Your task to perform on an android device: Search for seafood restaurants on Google Maps Image 0: 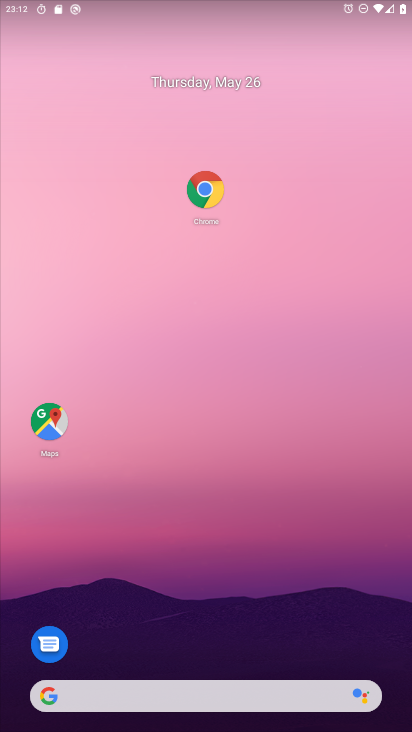
Step 0: drag from (216, 631) to (210, 145)
Your task to perform on an android device: Search for seafood restaurants on Google Maps Image 1: 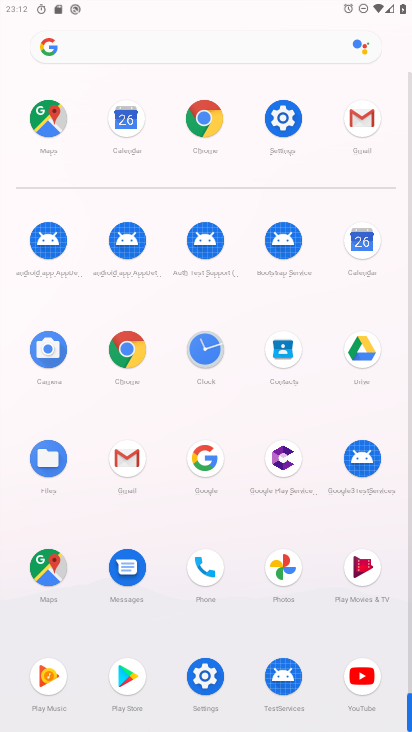
Step 1: click (216, 456)
Your task to perform on an android device: Search for seafood restaurants on Google Maps Image 2: 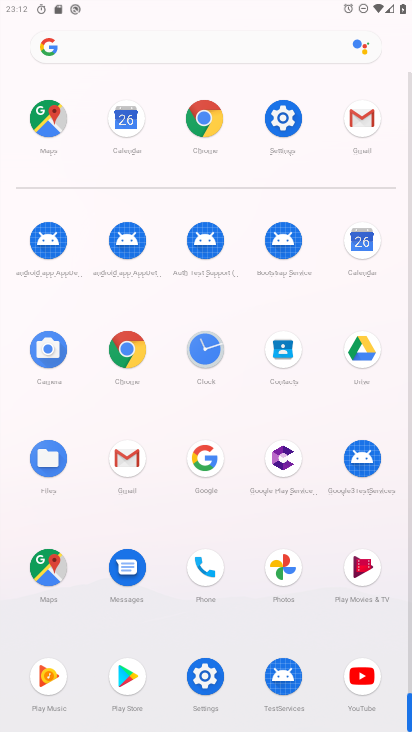
Step 2: click (216, 456)
Your task to perform on an android device: Search for seafood restaurants on Google Maps Image 3: 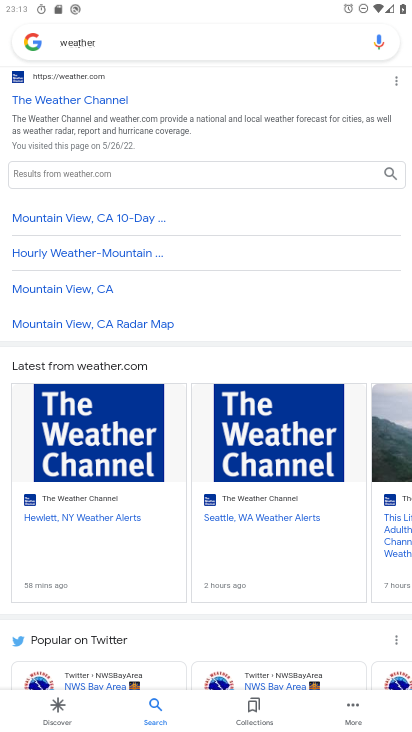
Step 3: press home button
Your task to perform on an android device: Search for seafood restaurants on Google Maps Image 4: 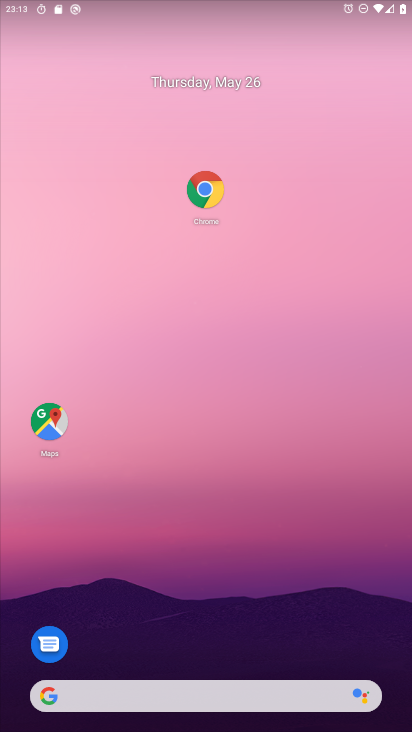
Step 4: drag from (362, 454) to (327, 314)
Your task to perform on an android device: Search for seafood restaurants on Google Maps Image 5: 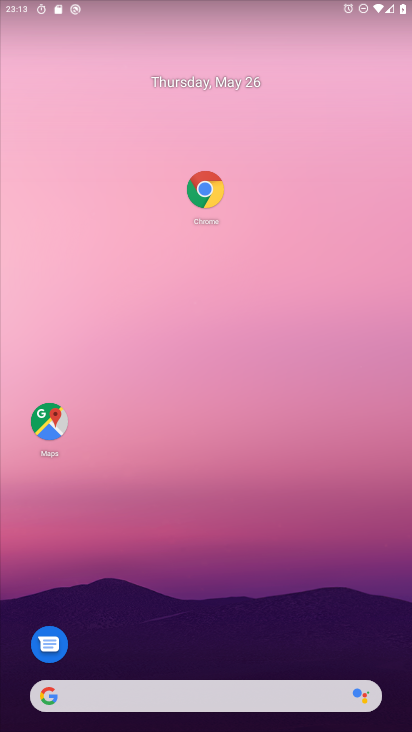
Step 5: drag from (307, 675) to (136, 270)
Your task to perform on an android device: Search for seafood restaurants on Google Maps Image 6: 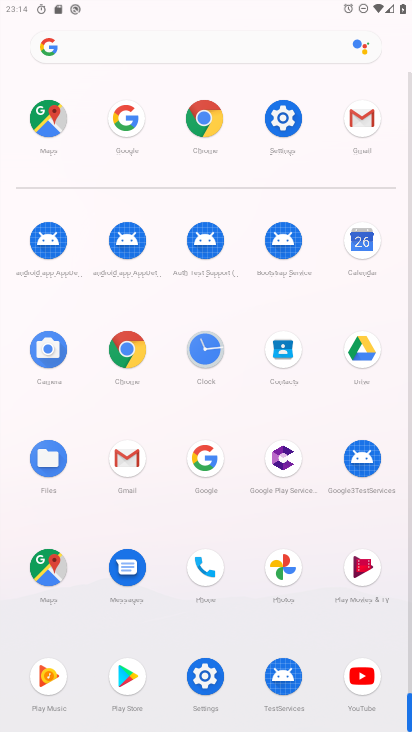
Step 6: click (47, 565)
Your task to perform on an android device: Search for seafood restaurants on Google Maps Image 7: 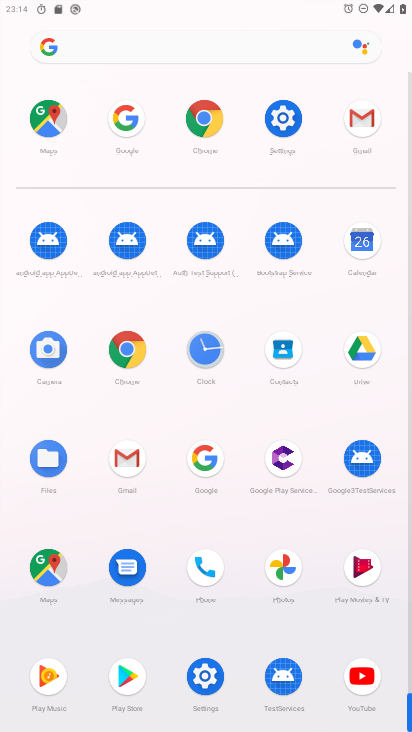
Step 7: click (46, 566)
Your task to perform on an android device: Search for seafood restaurants on Google Maps Image 8: 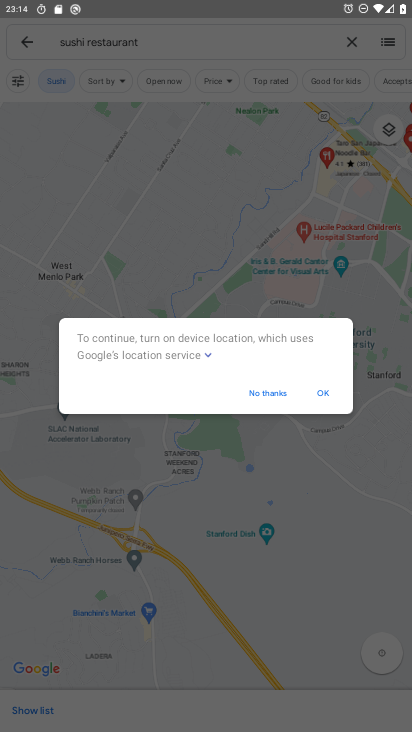
Step 8: press back button
Your task to perform on an android device: Search for seafood restaurants on Google Maps Image 9: 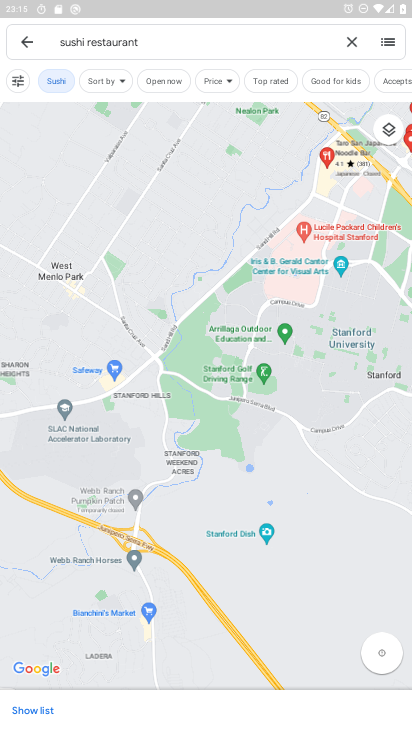
Step 9: click (353, 44)
Your task to perform on an android device: Search for seafood restaurants on Google Maps Image 10: 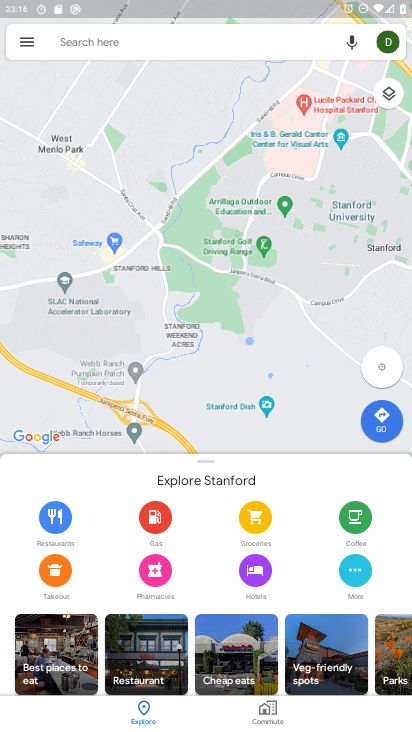
Step 10: click (58, 42)
Your task to perform on an android device: Search for seafood restaurants on Google Maps Image 11: 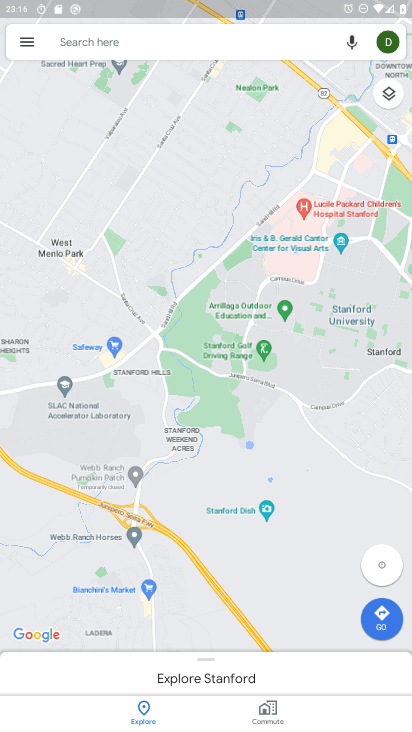
Step 11: click (145, 51)
Your task to perform on an android device: Search for seafood restaurants on Google Maps Image 12: 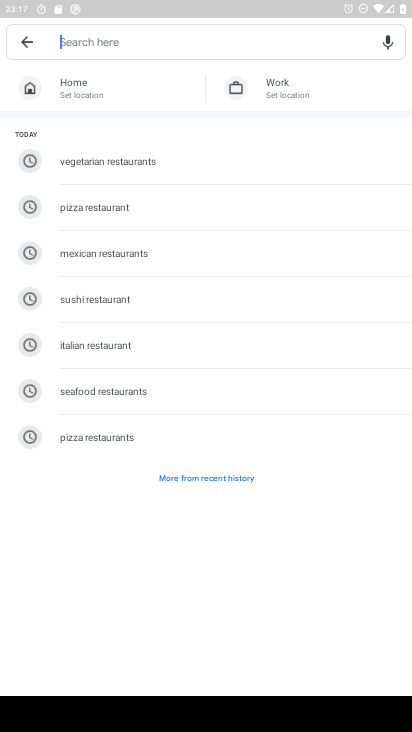
Step 12: click (129, 399)
Your task to perform on an android device: Search for seafood restaurants on Google Maps Image 13: 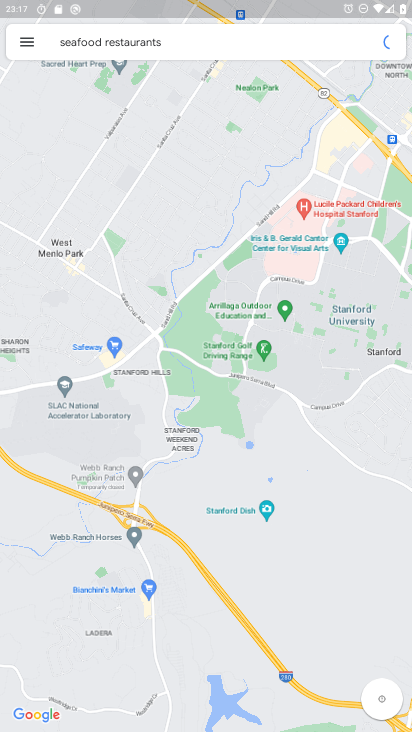
Step 13: task complete